Your task to perform on an android device: Open the phone app and click the voicemail tab. Image 0: 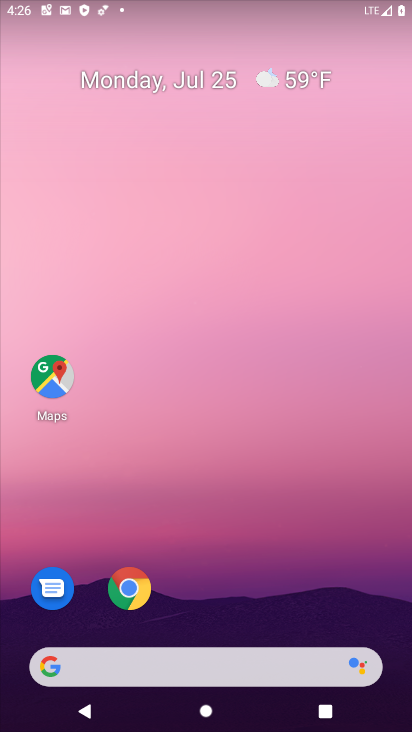
Step 0: drag from (322, 551) to (363, 89)
Your task to perform on an android device: Open the phone app and click the voicemail tab. Image 1: 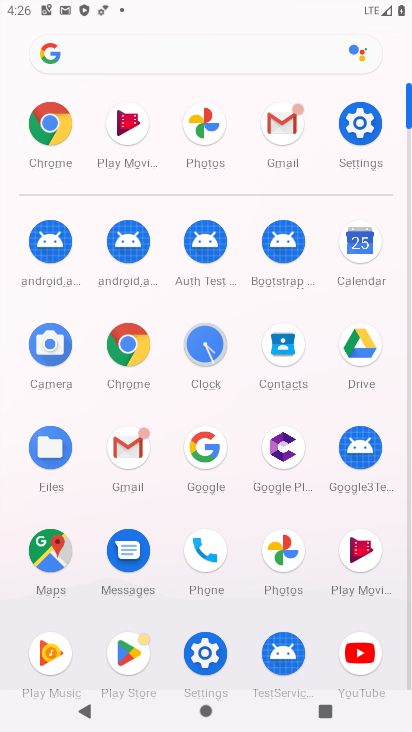
Step 1: click (199, 536)
Your task to perform on an android device: Open the phone app and click the voicemail tab. Image 2: 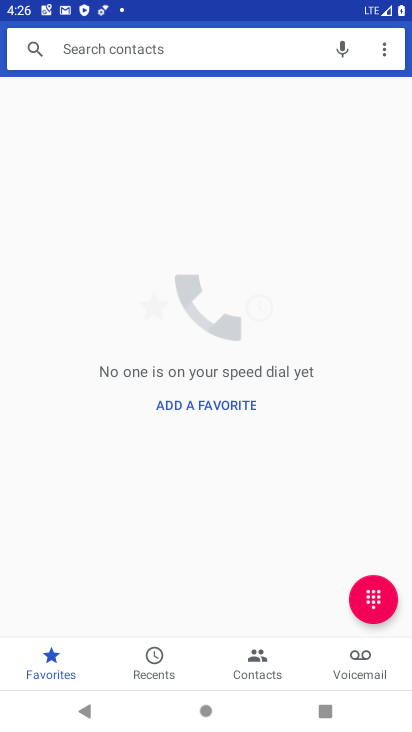
Step 2: click (358, 659)
Your task to perform on an android device: Open the phone app and click the voicemail tab. Image 3: 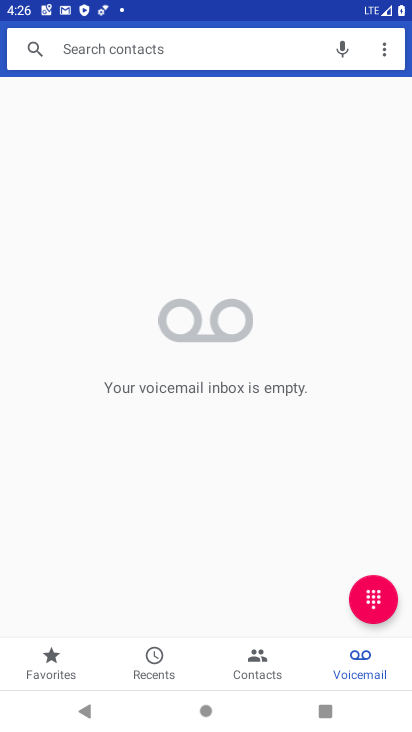
Step 3: task complete